Your task to perform on an android device: search for starred emails in the gmail app Image 0: 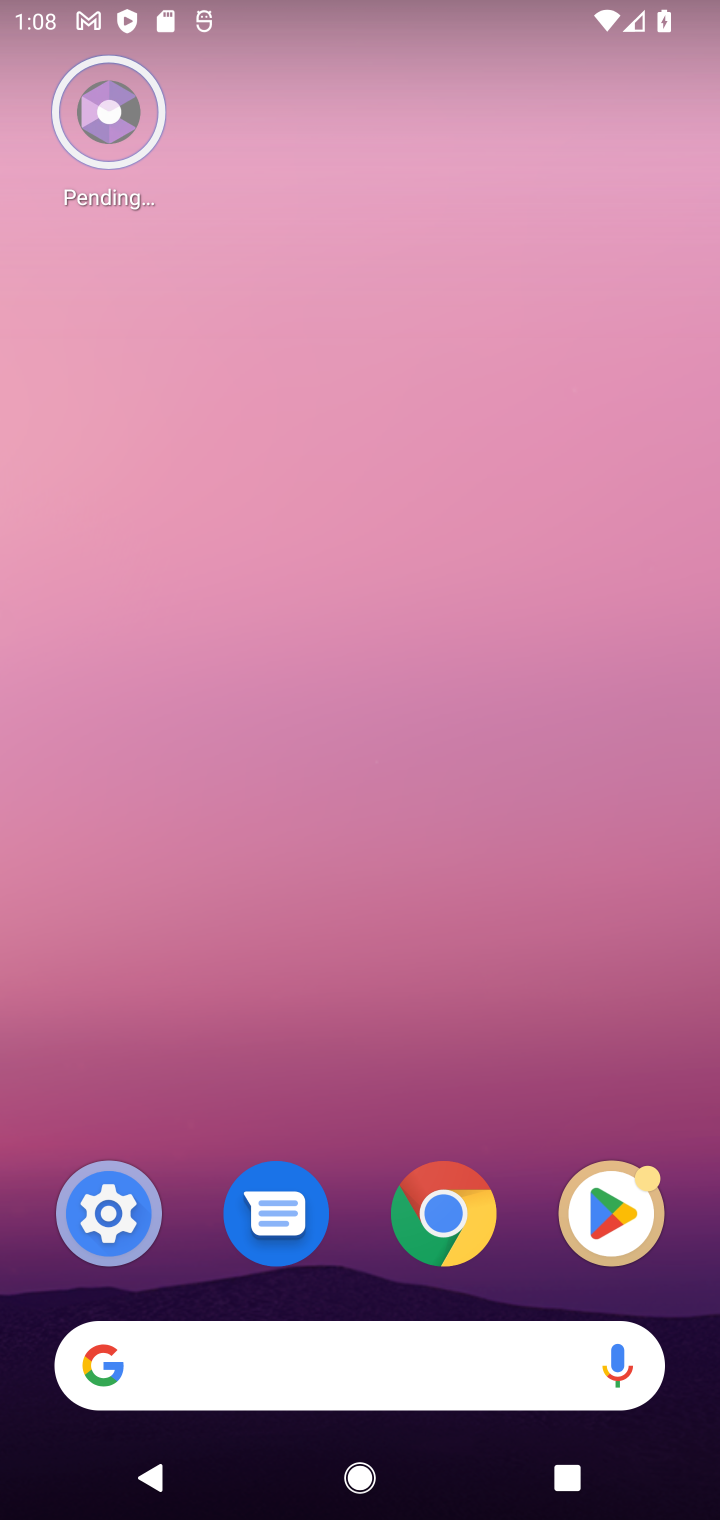
Step 0: drag from (535, 1199) to (441, 6)
Your task to perform on an android device: search for starred emails in the gmail app Image 1: 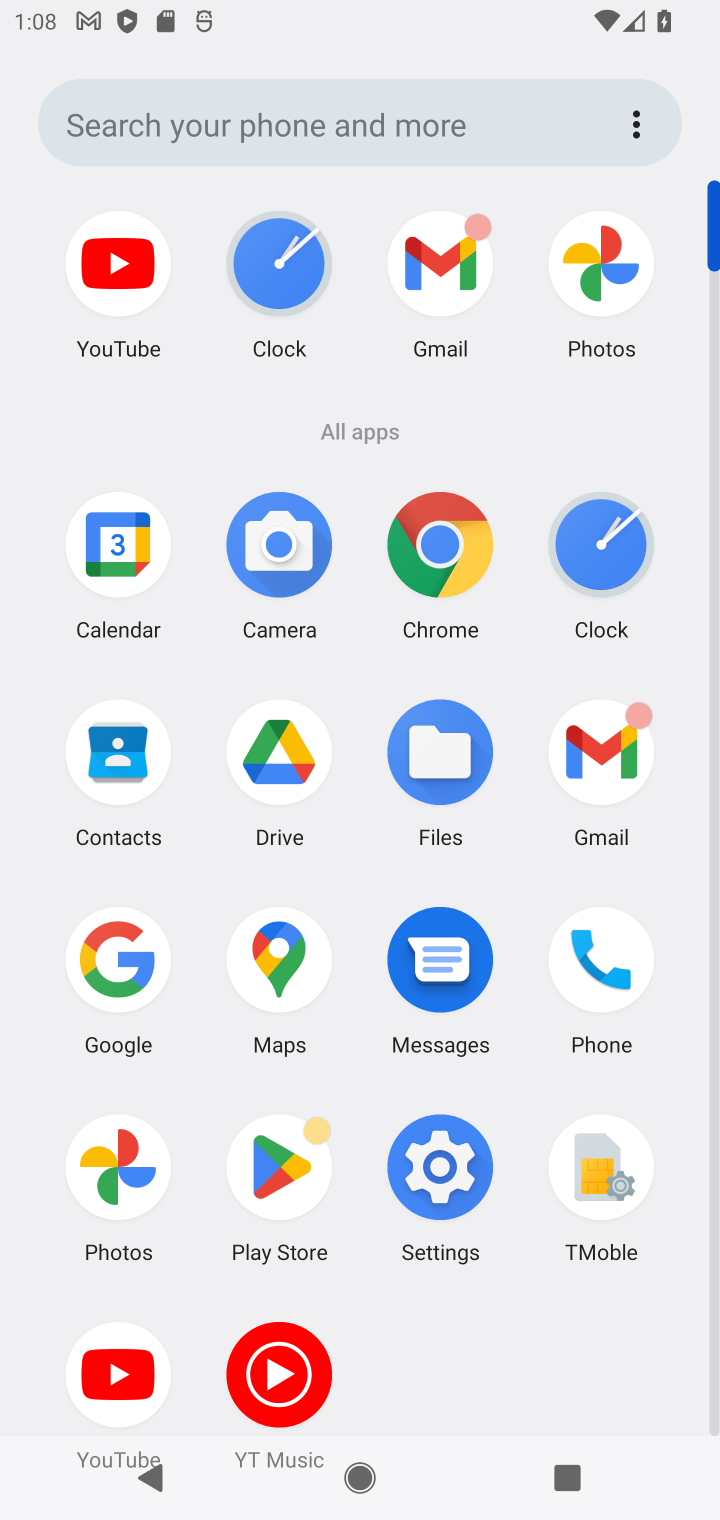
Step 1: click (624, 753)
Your task to perform on an android device: search for starred emails in the gmail app Image 2: 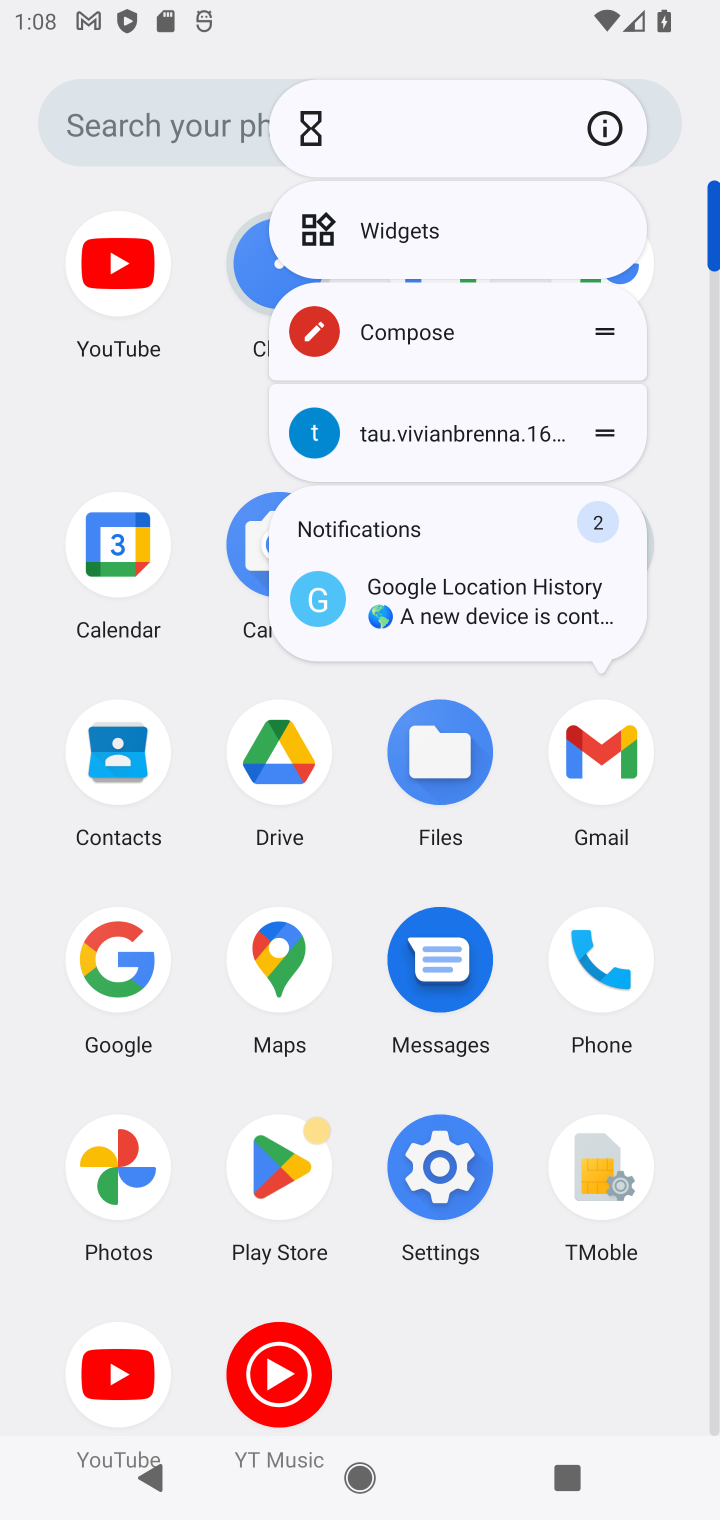
Step 2: click (624, 753)
Your task to perform on an android device: search for starred emails in the gmail app Image 3: 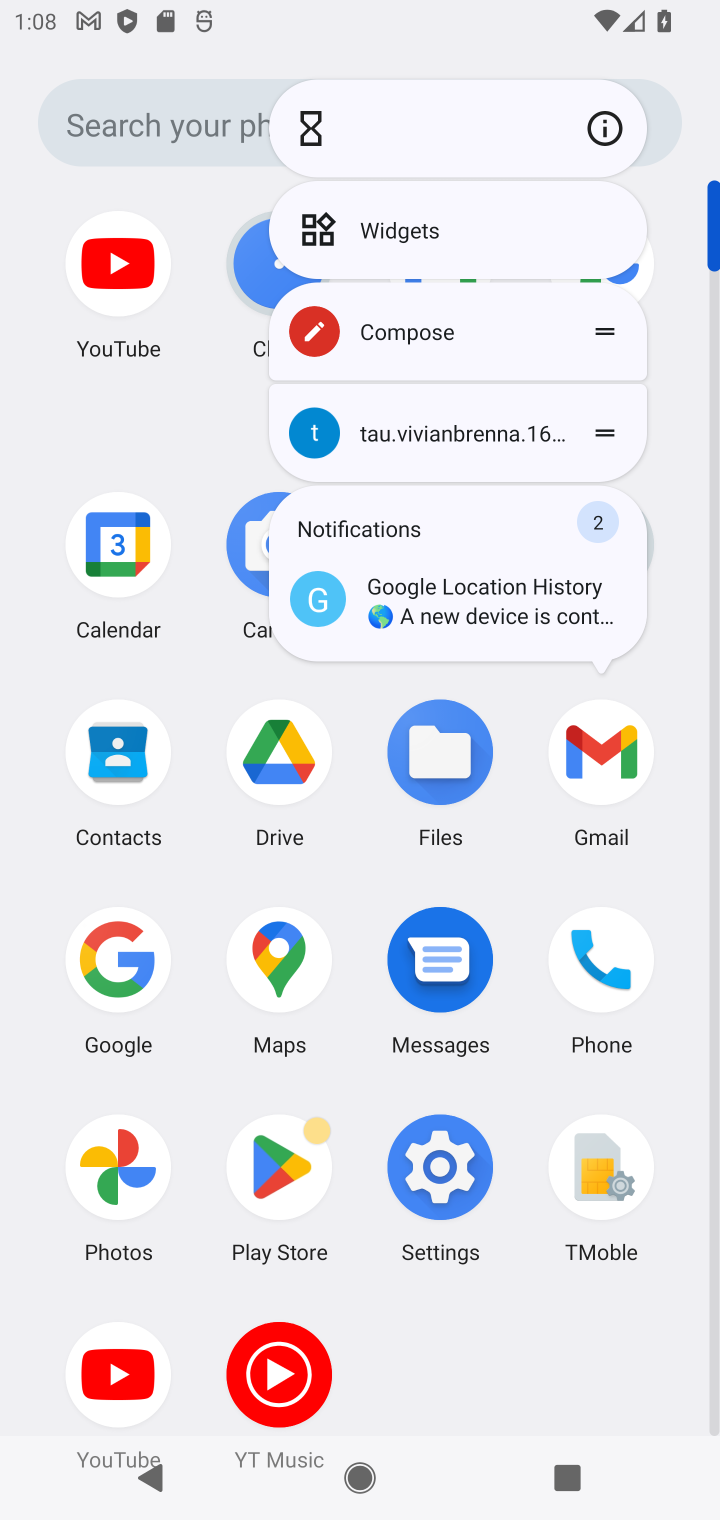
Step 3: click (624, 753)
Your task to perform on an android device: search for starred emails in the gmail app Image 4: 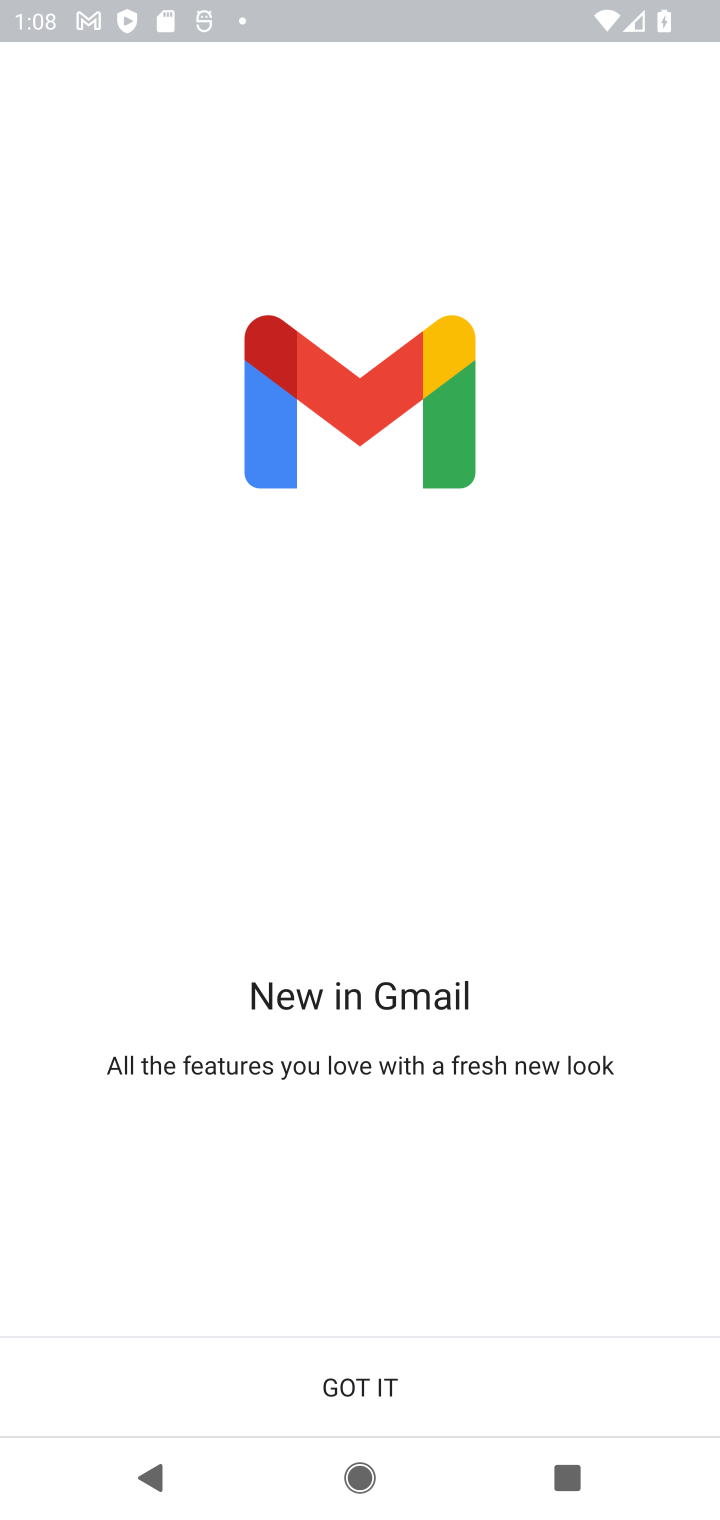
Step 4: click (392, 1383)
Your task to perform on an android device: search for starred emails in the gmail app Image 5: 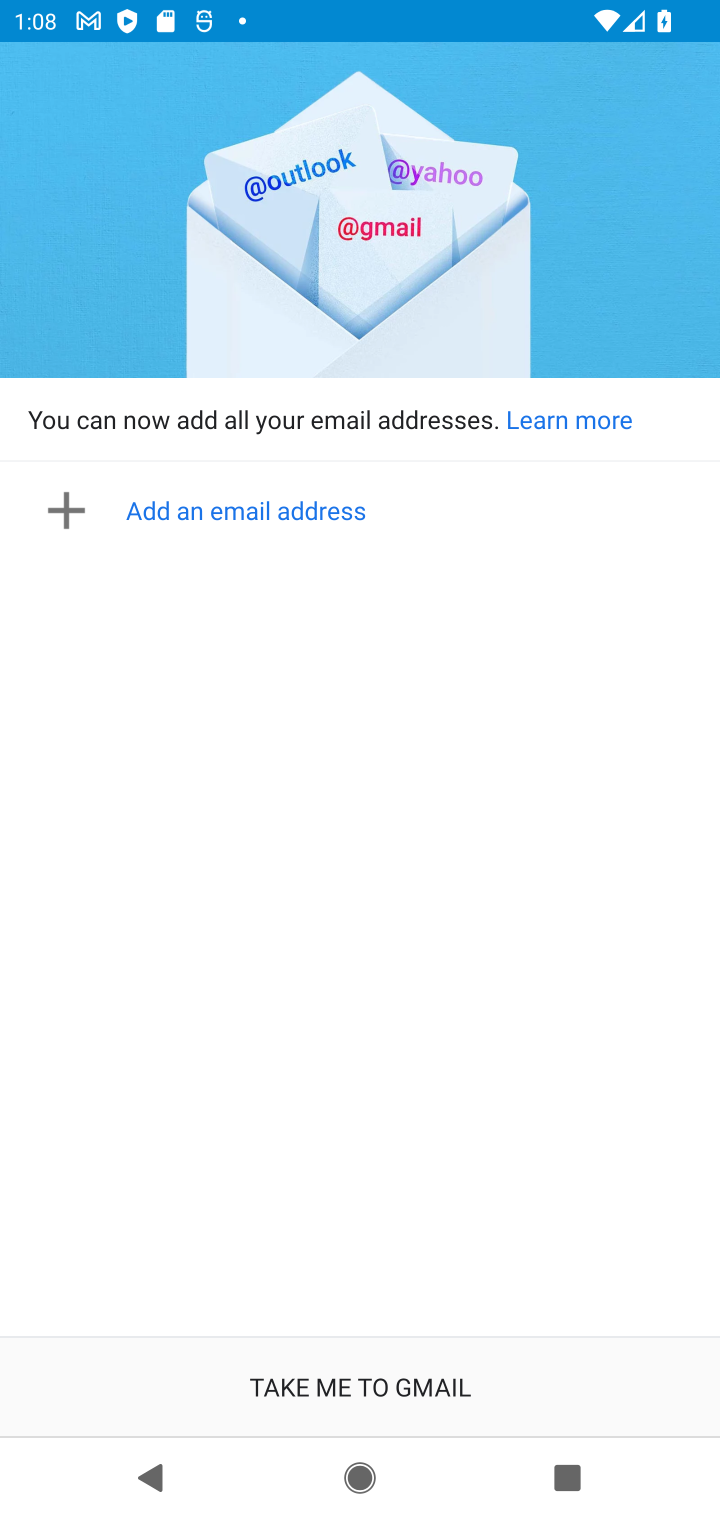
Step 5: click (392, 1383)
Your task to perform on an android device: search for starred emails in the gmail app Image 6: 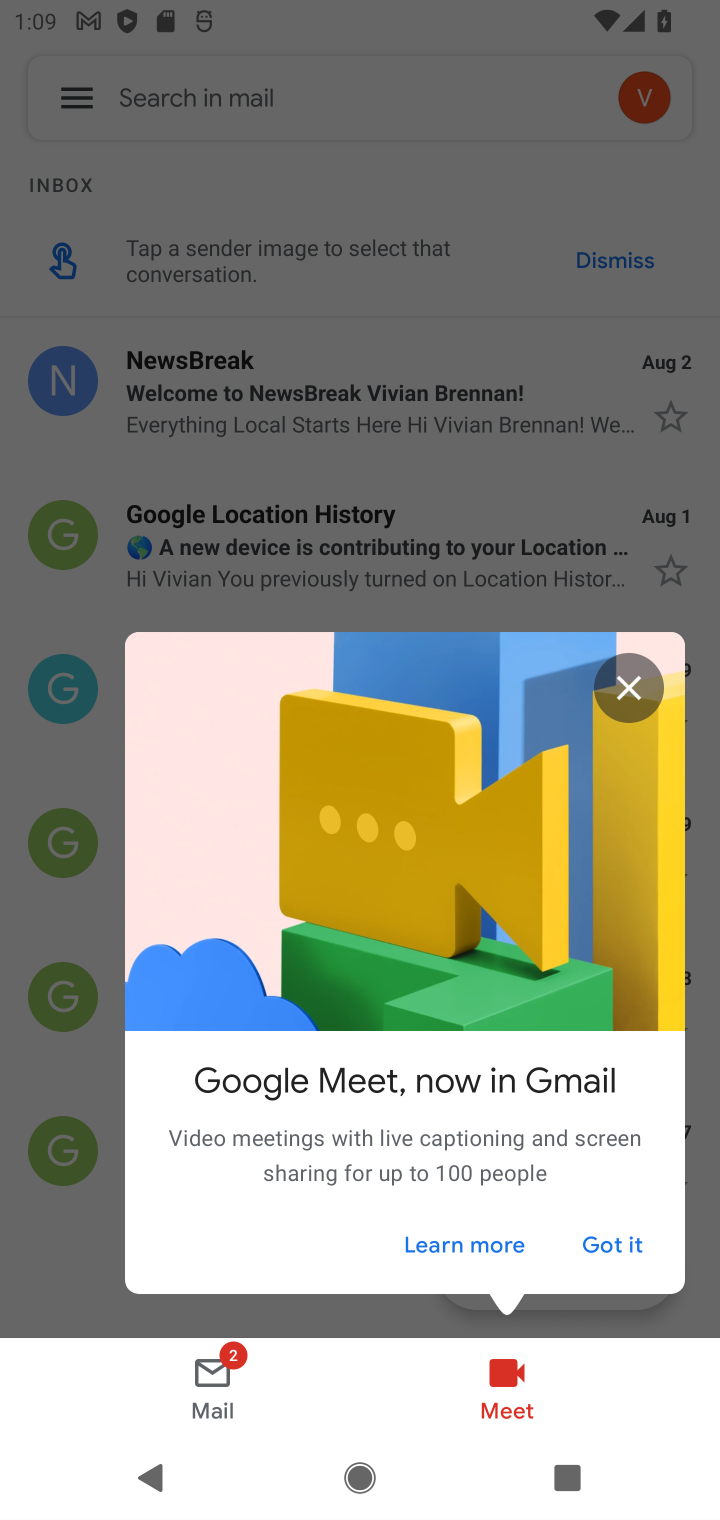
Step 6: click (628, 675)
Your task to perform on an android device: search for starred emails in the gmail app Image 7: 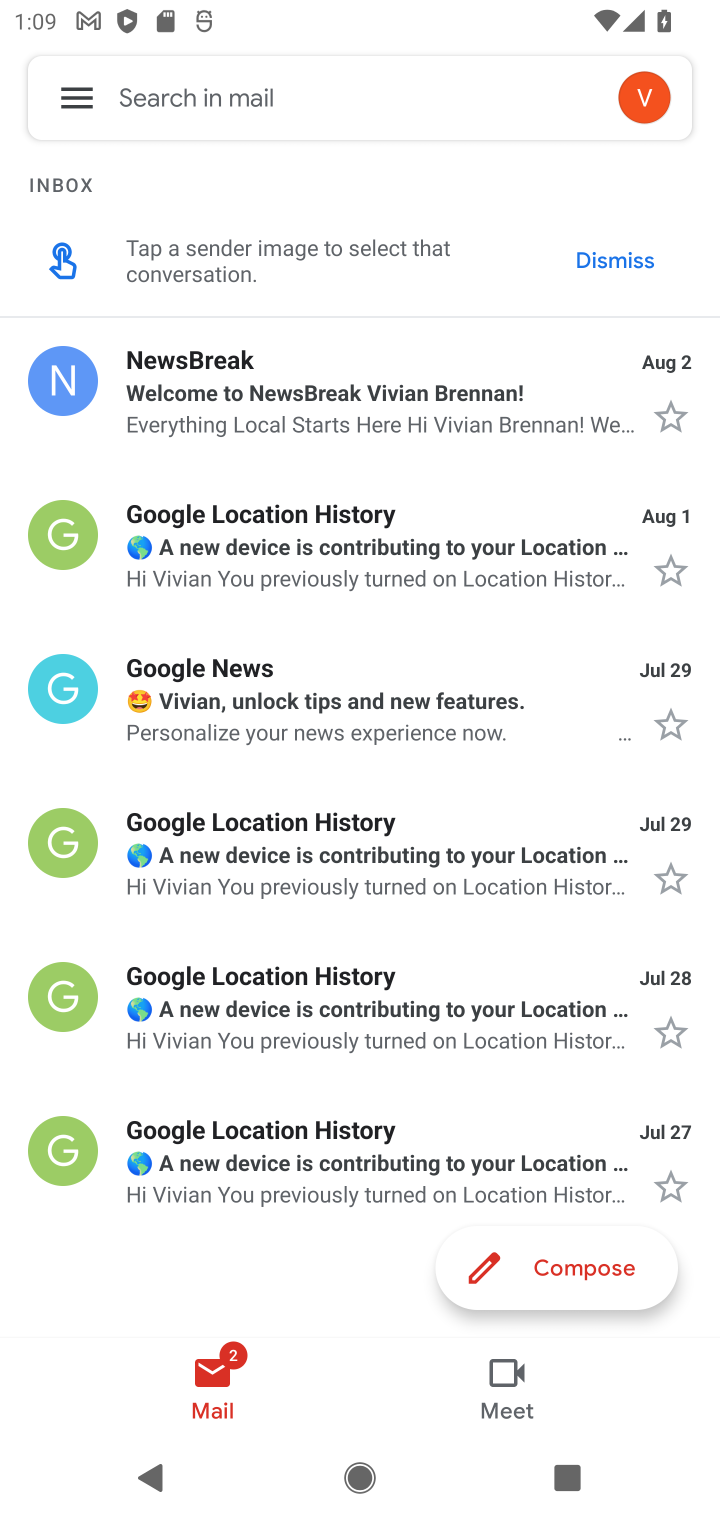
Step 7: drag from (330, 1114) to (420, 308)
Your task to perform on an android device: search for starred emails in the gmail app Image 8: 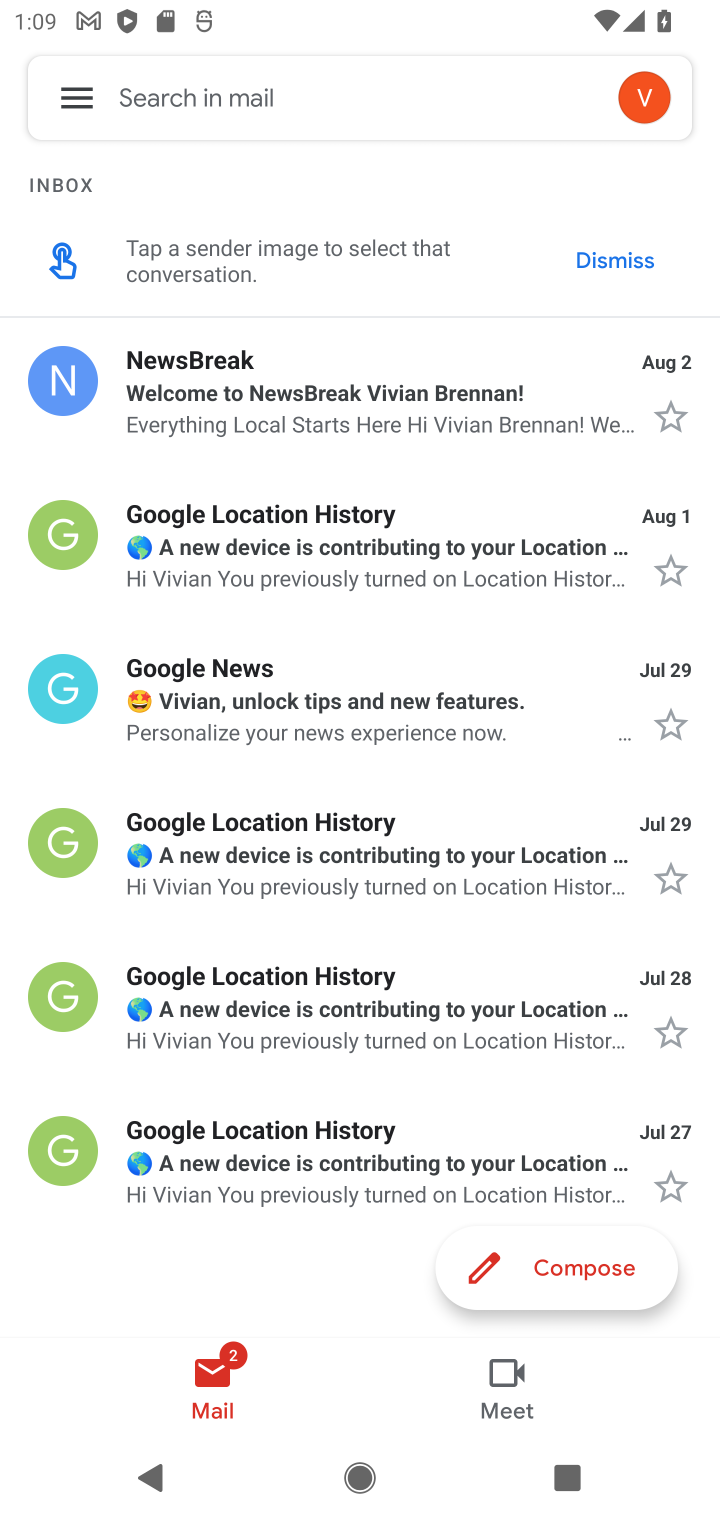
Step 8: click (86, 95)
Your task to perform on an android device: search for starred emails in the gmail app Image 9: 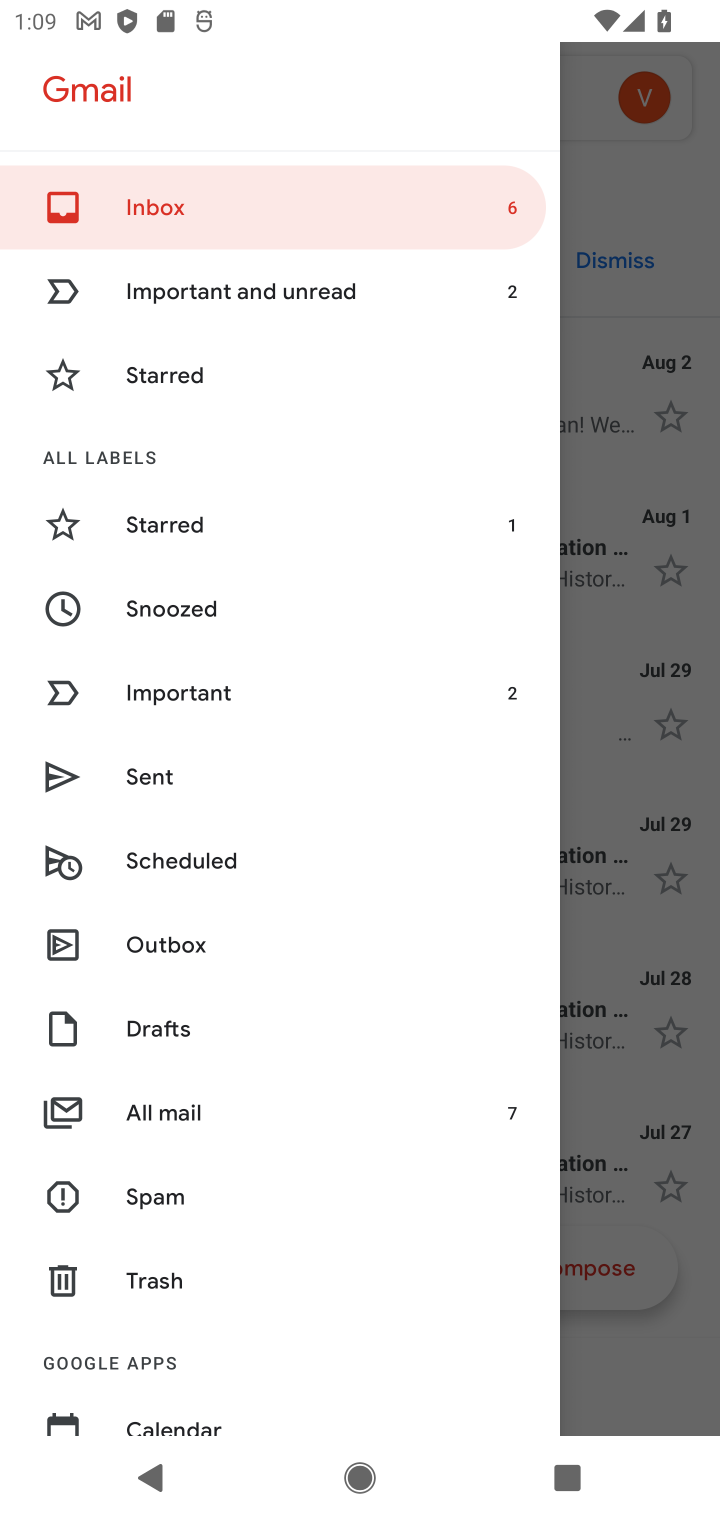
Step 9: click (147, 534)
Your task to perform on an android device: search for starred emails in the gmail app Image 10: 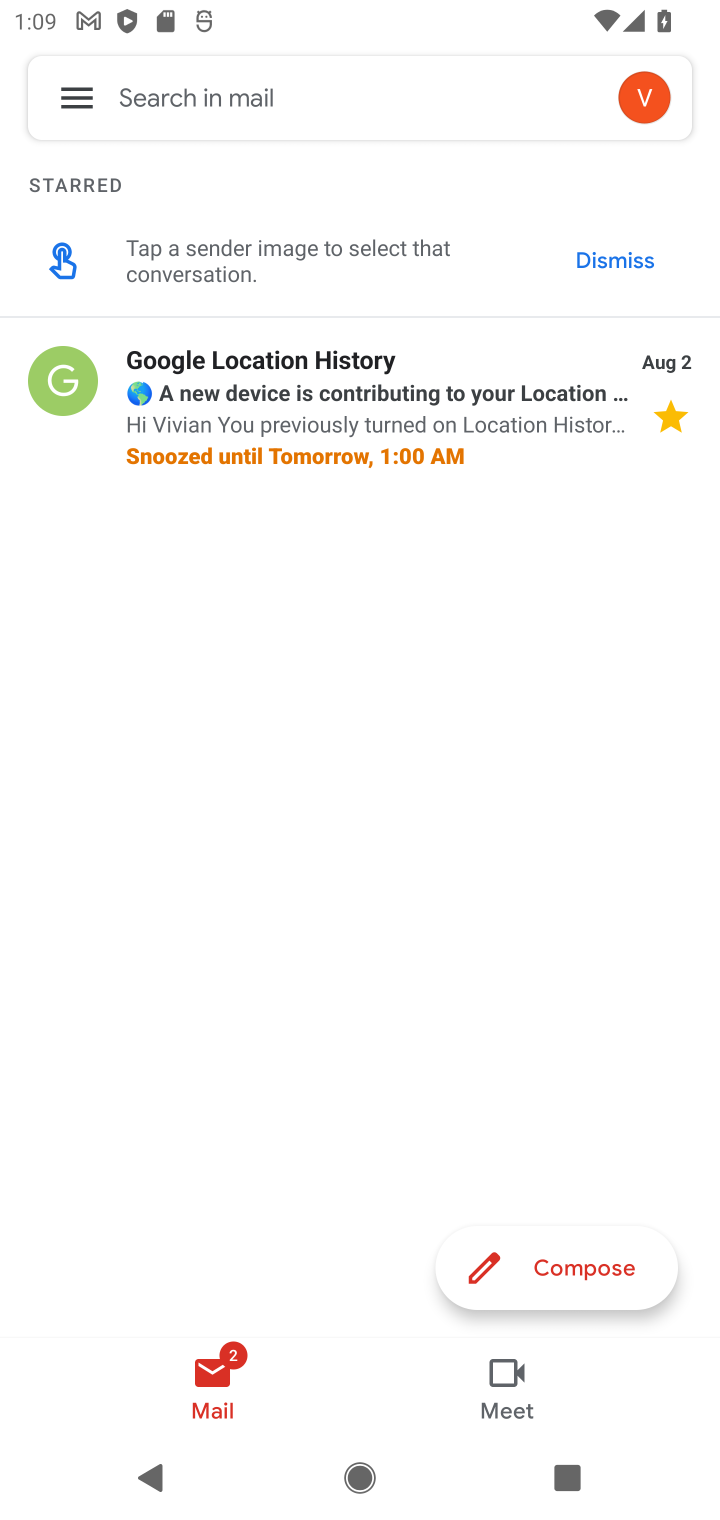
Step 10: task complete